Your task to perform on an android device: toggle location history Image 0: 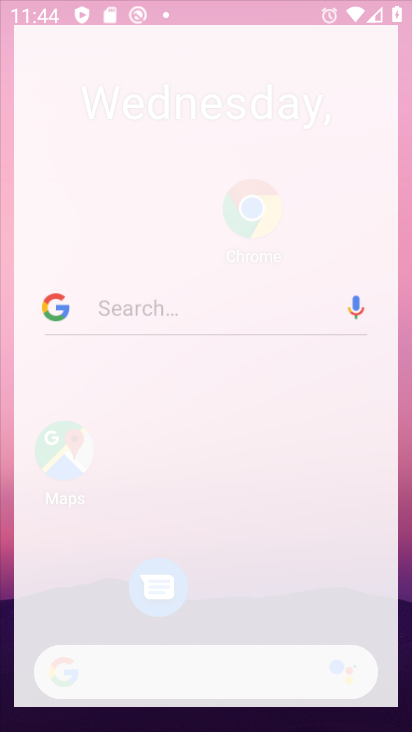
Step 0: drag from (250, 602) to (249, 147)
Your task to perform on an android device: toggle location history Image 1: 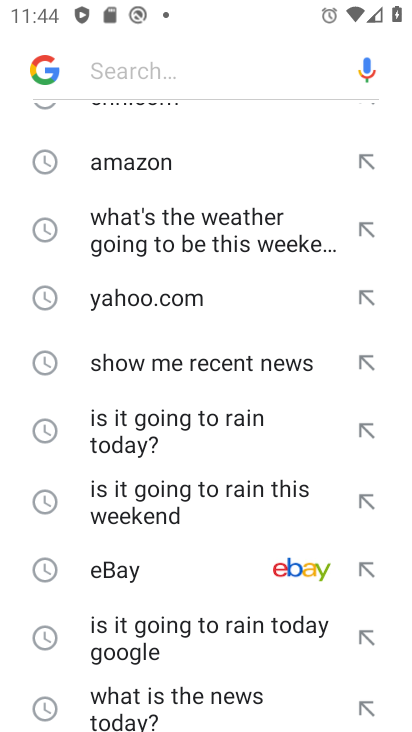
Step 1: press back button
Your task to perform on an android device: toggle location history Image 2: 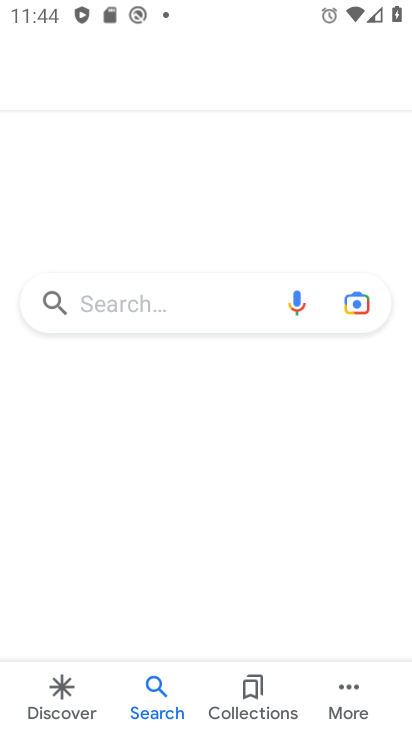
Step 2: press back button
Your task to perform on an android device: toggle location history Image 3: 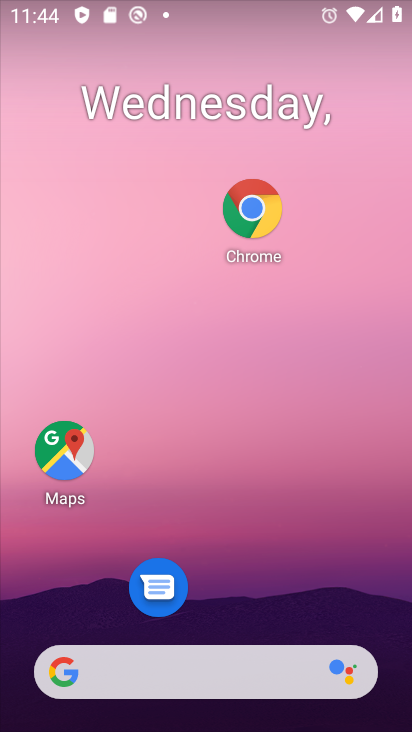
Step 3: drag from (253, 604) to (244, 43)
Your task to perform on an android device: toggle location history Image 4: 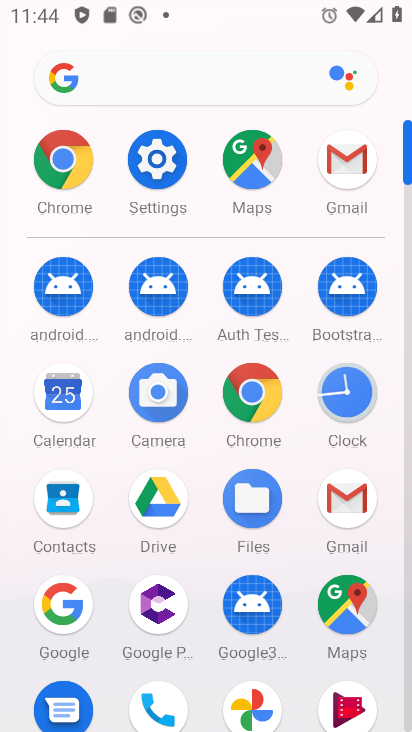
Step 4: click (155, 164)
Your task to perform on an android device: toggle location history Image 5: 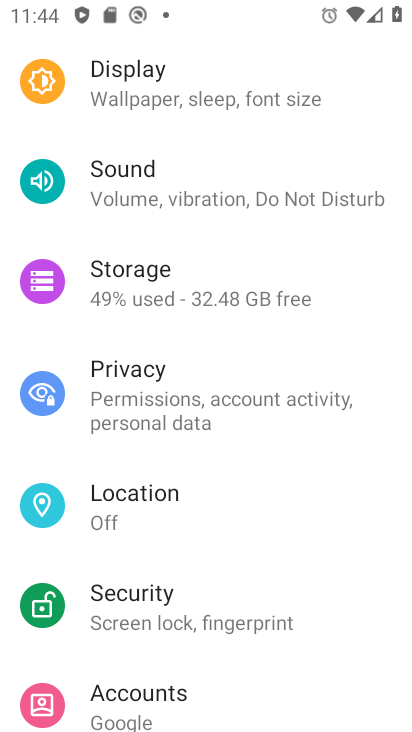
Step 5: click (157, 520)
Your task to perform on an android device: toggle location history Image 6: 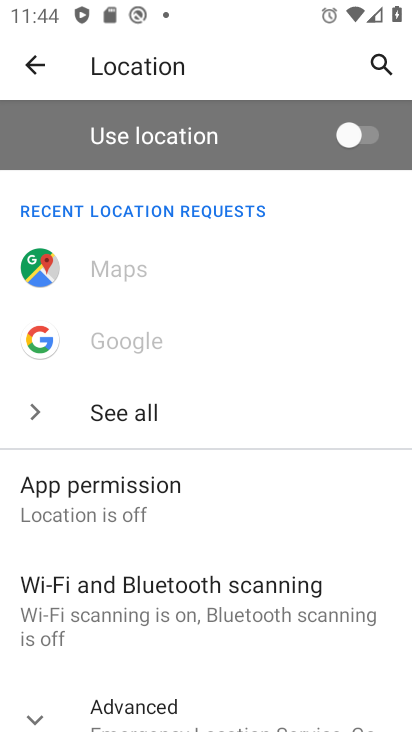
Step 6: drag from (252, 646) to (169, 31)
Your task to perform on an android device: toggle location history Image 7: 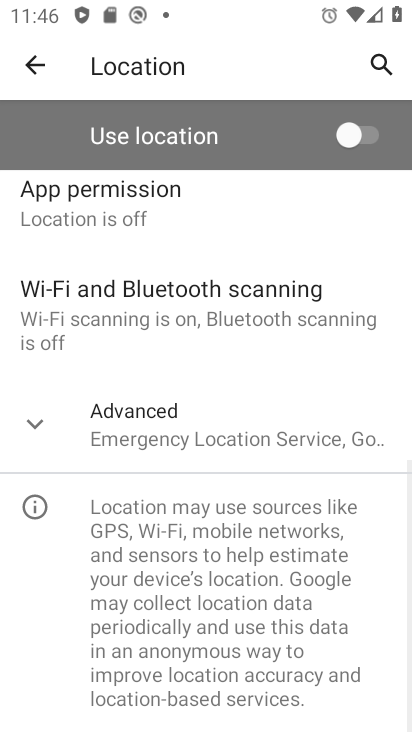
Step 7: click (144, 441)
Your task to perform on an android device: toggle location history Image 8: 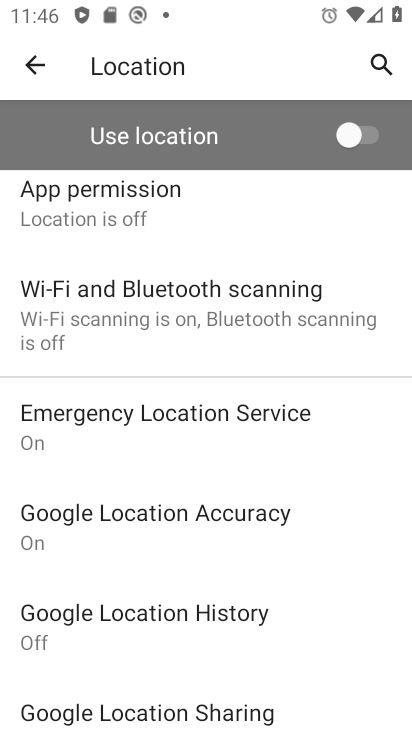
Step 8: click (215, 613)
Your task to perform on an android device: toggle location history Image 9: 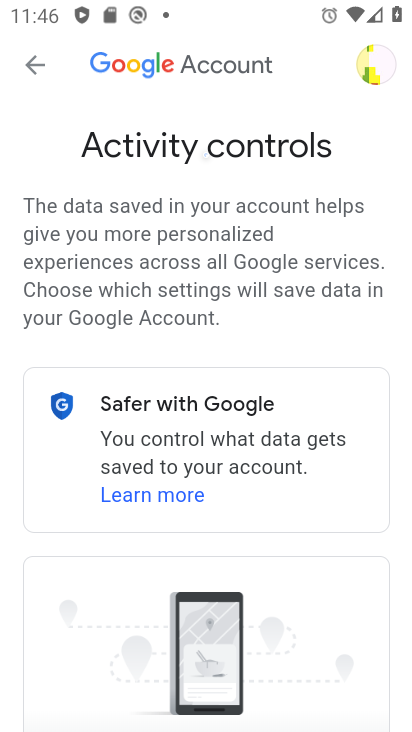
Step 9: drag from (310, 667) to (367, 172)
Your task to perform on an android device: toggle location history Image 10: 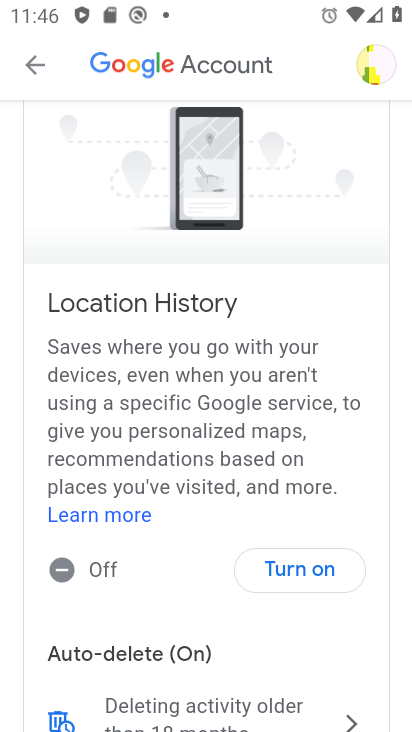
Step 10: click (276, 576)
Your task to perform on an android device: toggle location history Image 11: 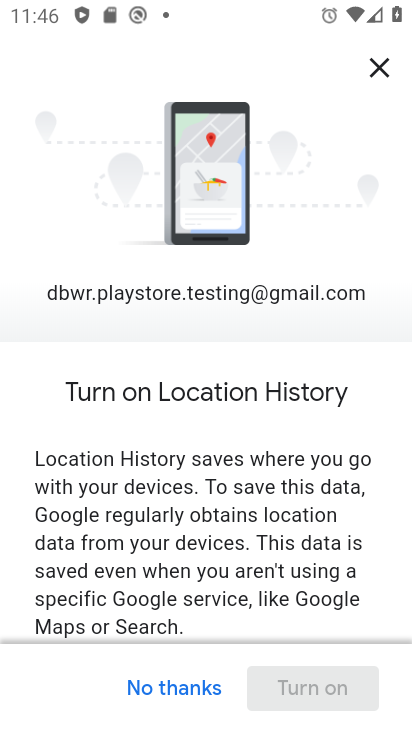
Step 11: drag from (212, 567) to (276, 183)
Your task to perform on an android device: toggle location history Image 12: 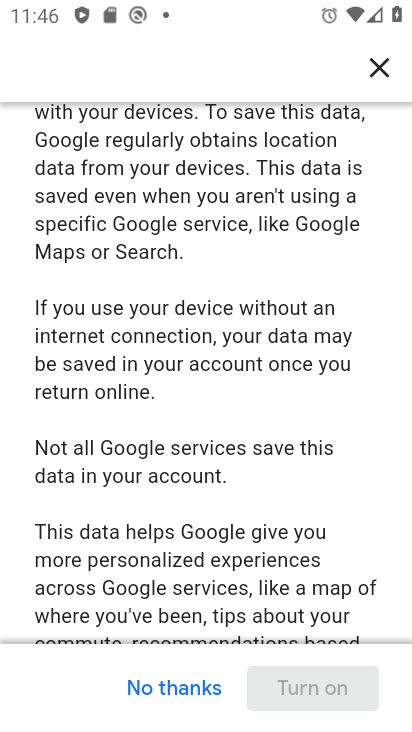
Step 12: drag from (264, 571) to (357, 111)
Your task to perform on an android device: toggle location history Image 13: 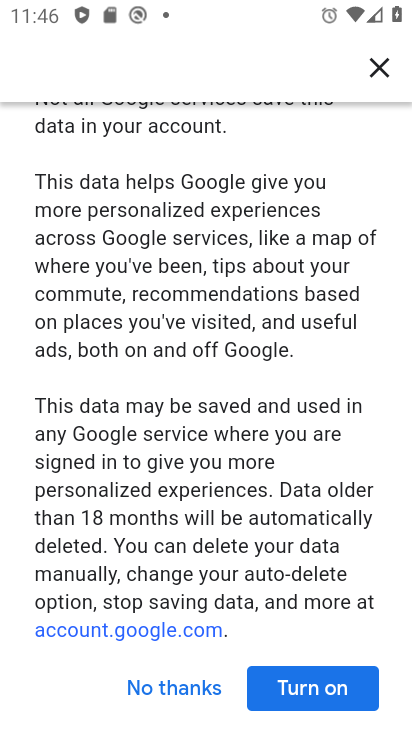
Step 13: click (320, 682)
Your task to perform on an android device: toggle location history Image 14: 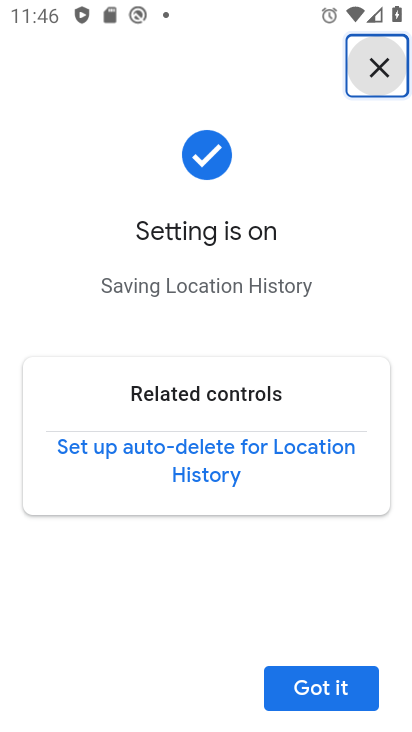
Step 14: click (320, 682)
Your task to perform on an android device: toggle location history Image 15: 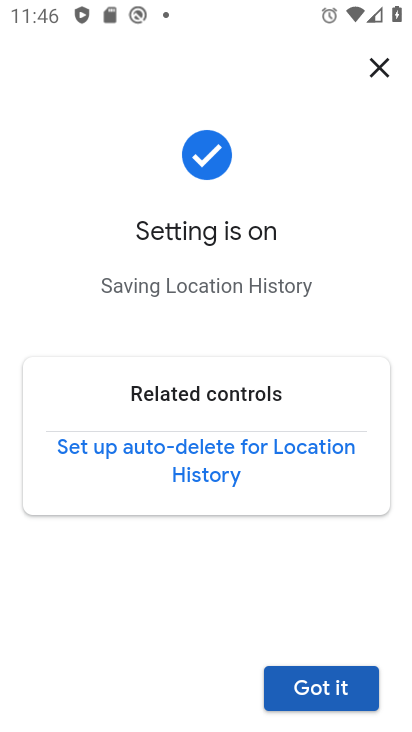
Step 15: click (323, 687)
Your task to perform on an android device: toggle location history Image 16: 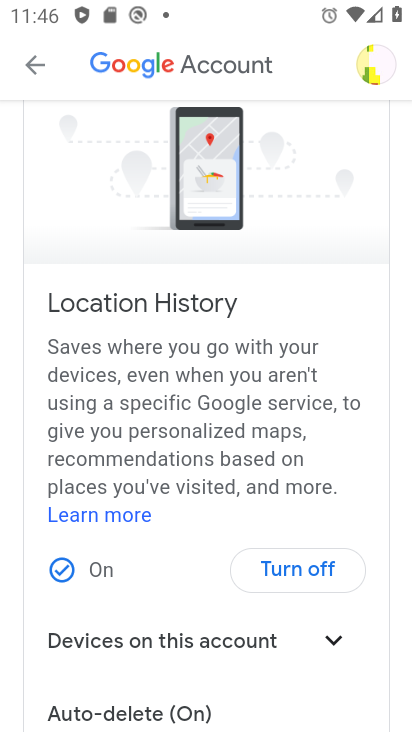
Step 16: task complete